Your task to perform on an android device: Go to eBay Image 0: 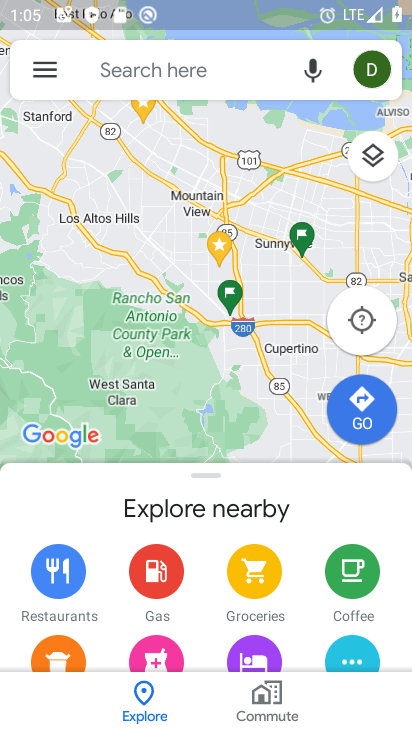
Step 0: press home button
Your task to perform on an android device: Go to eBay Image 1: 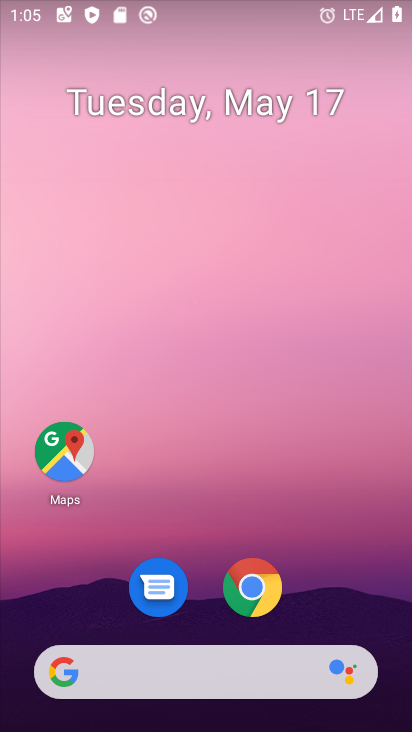
Step 1: drag from (387, 624) to (281, 0)
Your task to perform on an android device: Go to eBay Image 2: 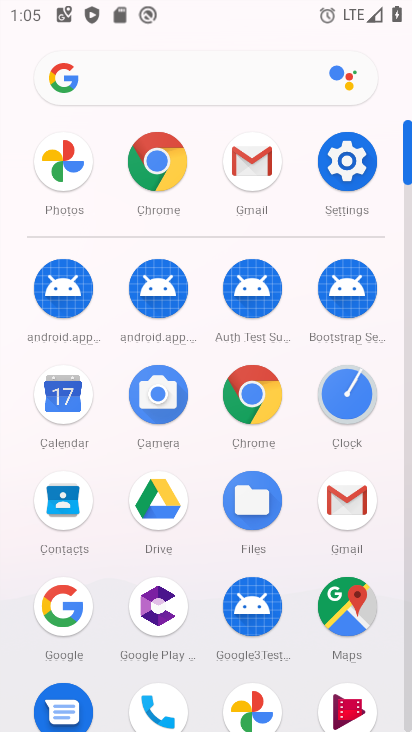
Step 2: click (47, 608)
Your task to perform on an android device: Go to eBay Image 3: 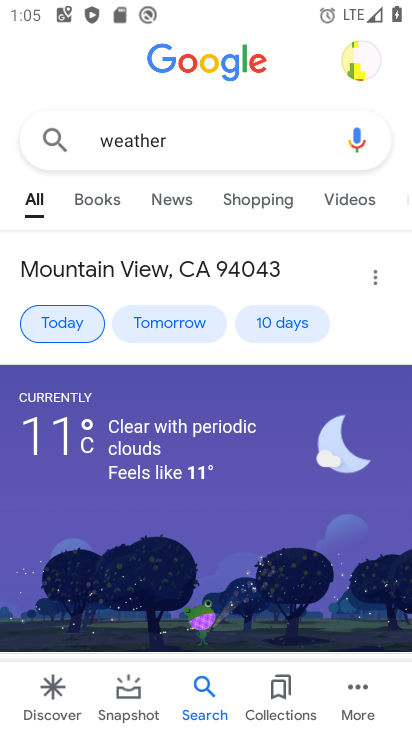
Step 3: press back button
Your task to perform on an android device: Go to eBay Image 4: 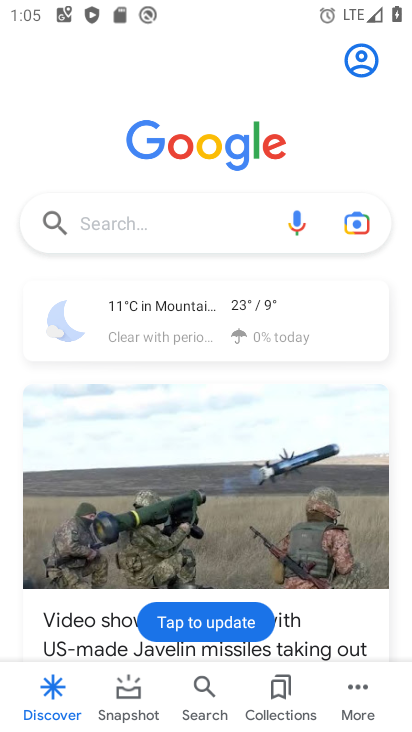
Step 4: click (112, 198)
Your task to perform on an android device: Go to eBay Image 5: 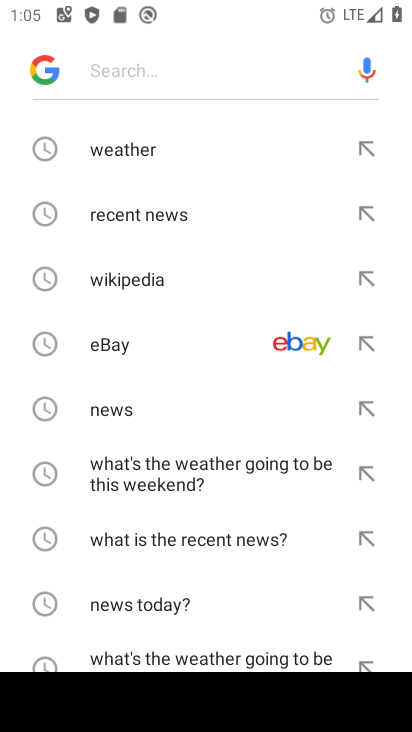
Step 5: click (169, 345)
Your task to perform on an android device: Go to eBay Image 6: 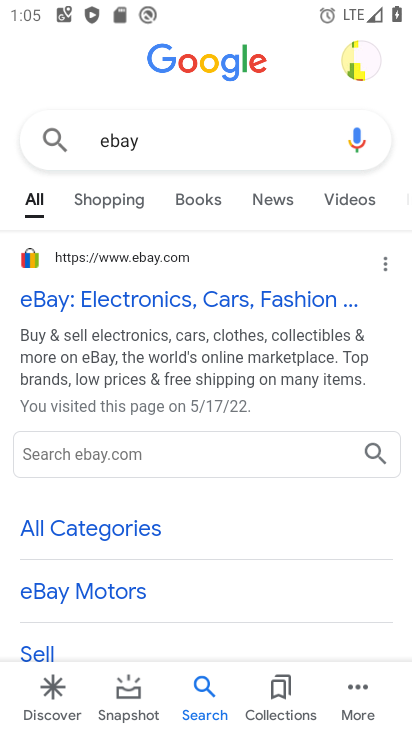
Step 6: task complete